Your task to perform on an android device: check android version Image 0: 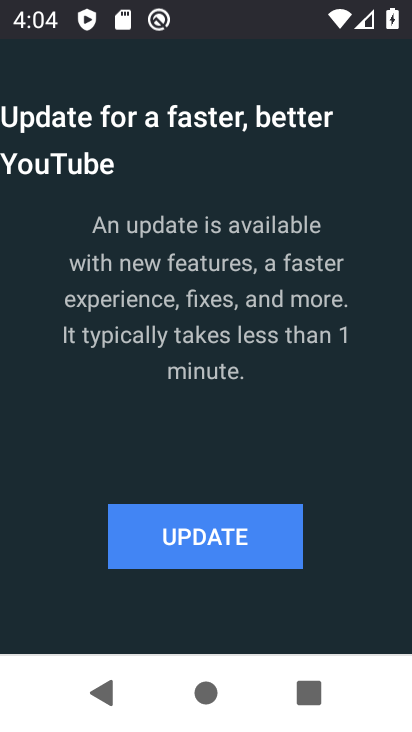
Step 0: press home button
Your task to perform on an android device: check android version Image 1: 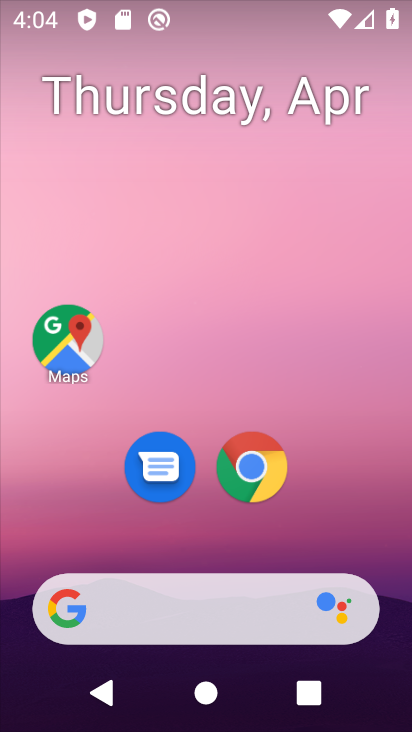
Step 1: drag from (206, 505) to (230, 6)
Your task to perform on an android device: check android version Image 2: 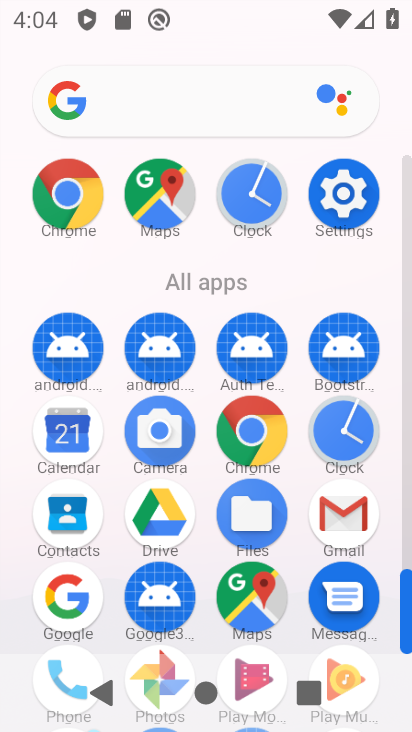
Step 2: click (331, 217)
Your task to perform on an android device: check android version Image 3: 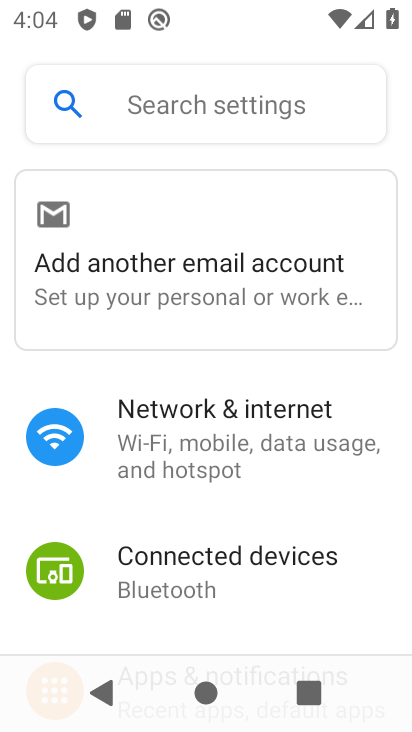
Step 3: drag from (148, 469) to (263, 69)
Your task to perform on an android device: check android version Image 4: 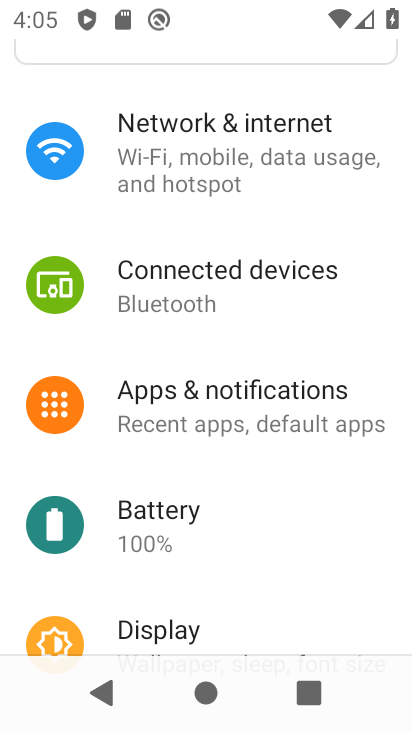
Step 4: drag from (219, 465) to (281, 159)
Your task to perform on an android device: check android version Image 5: 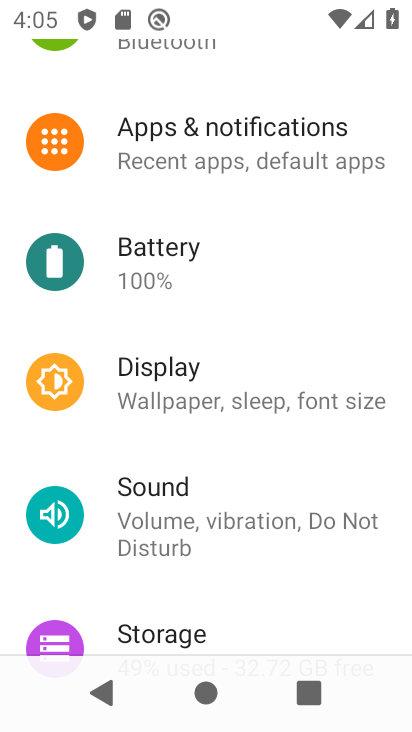
Step 5: drag from (227, 471) to (320, 0)
Your task to perform on an android device: check android version Image 6: 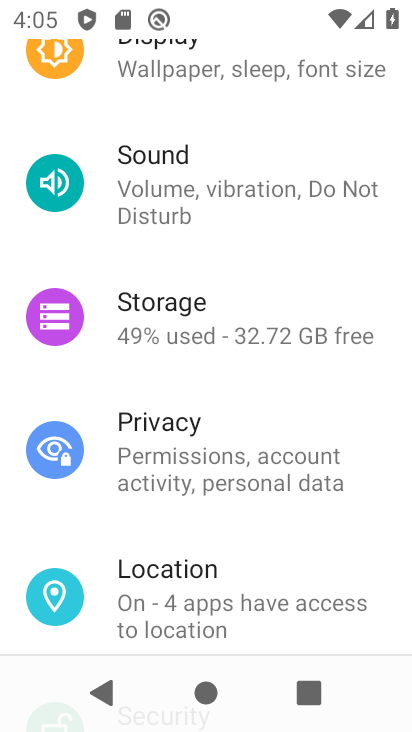
Step 6: drag from (182, 547) to (272, 35)
Your task to perform on an android device: check android version Image 7: 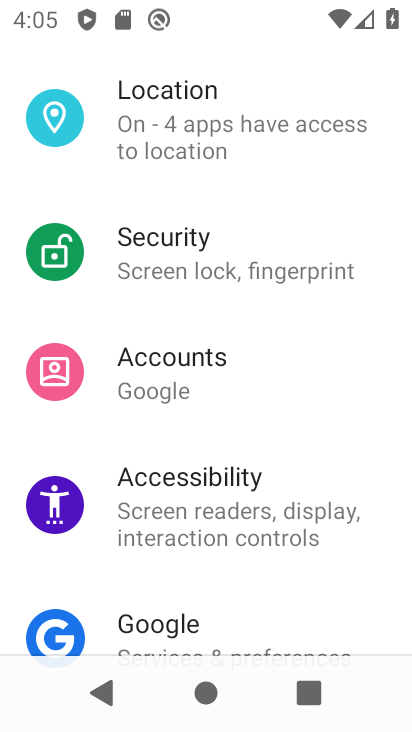
Step 7: drag from (183, 586) to (275, 94)
Your task to perform on an android device: check android version Image 8: 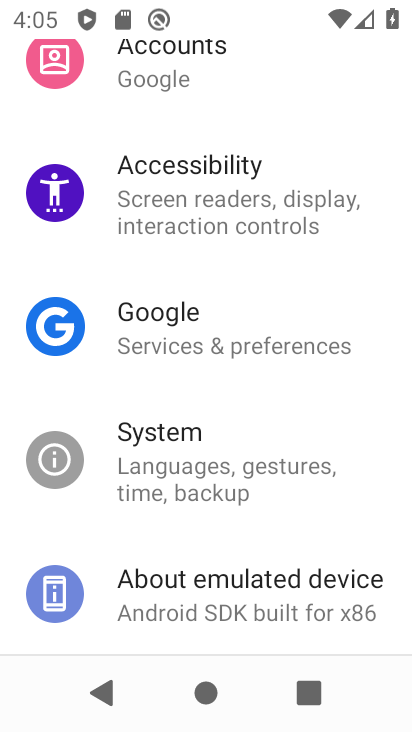
Step 8: click (206, 582)
Your task to perform on an android device: check android version Image 9: 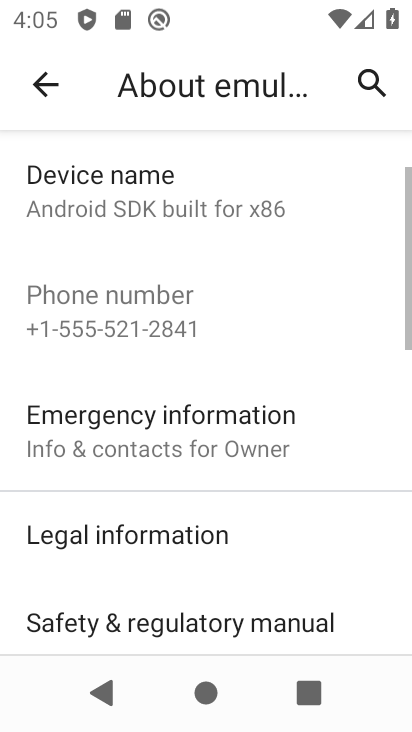
Step 9: drag from (116, 536) to (234, 90)
Your task to perform on an android device: check android version Image 10: 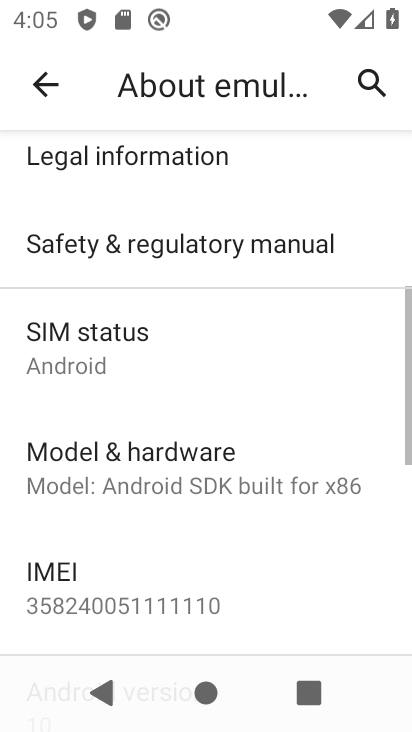
Step 10: drag from (122, 523) to (256, 131)
Your task to perform on an android device: check android version Image 11: 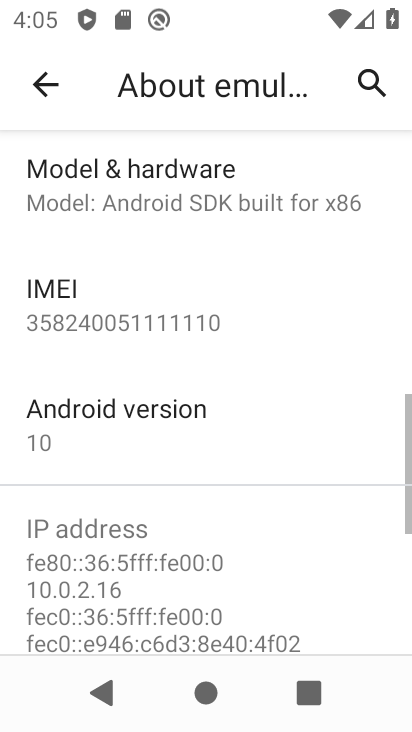
Step 11: click (165, 409)
Your task to perform on an android device: check android version Image 12: 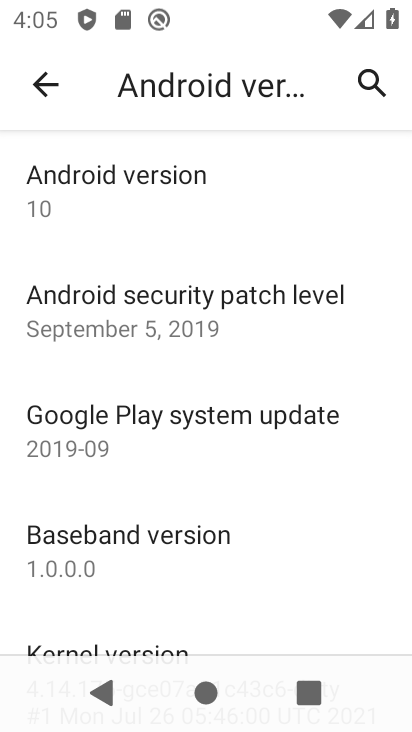
Step 12: task complete